Your task to perform on an android device: install app "Google Drive" Image 0: 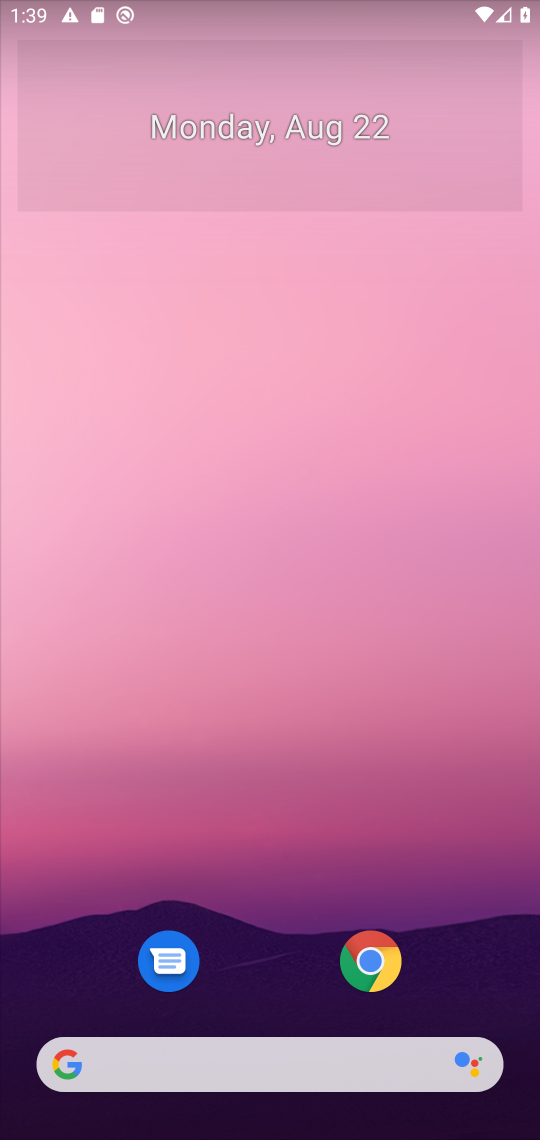
Step 0: press home button
Your task to perform on an android device: install app "Google Drive" Image 1: 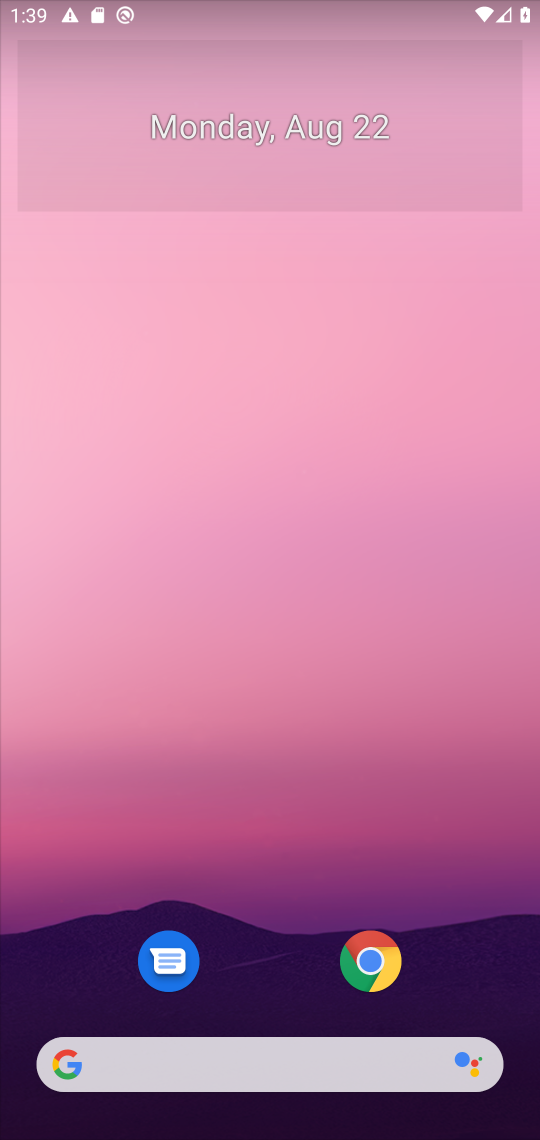
Step 1: drag from (482, 960) to (495, 161)
Your task to perform on an android device: install app "Google Drive" Image 2: 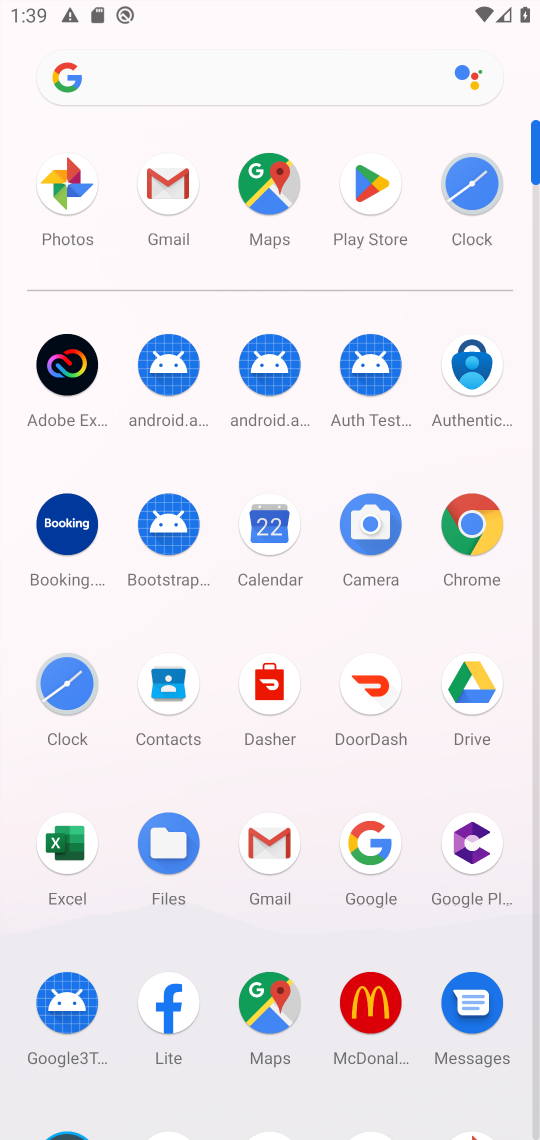
Step 2: click (374, 196)
Your task to perform on an android device: install app "Google Drive" Image 3: 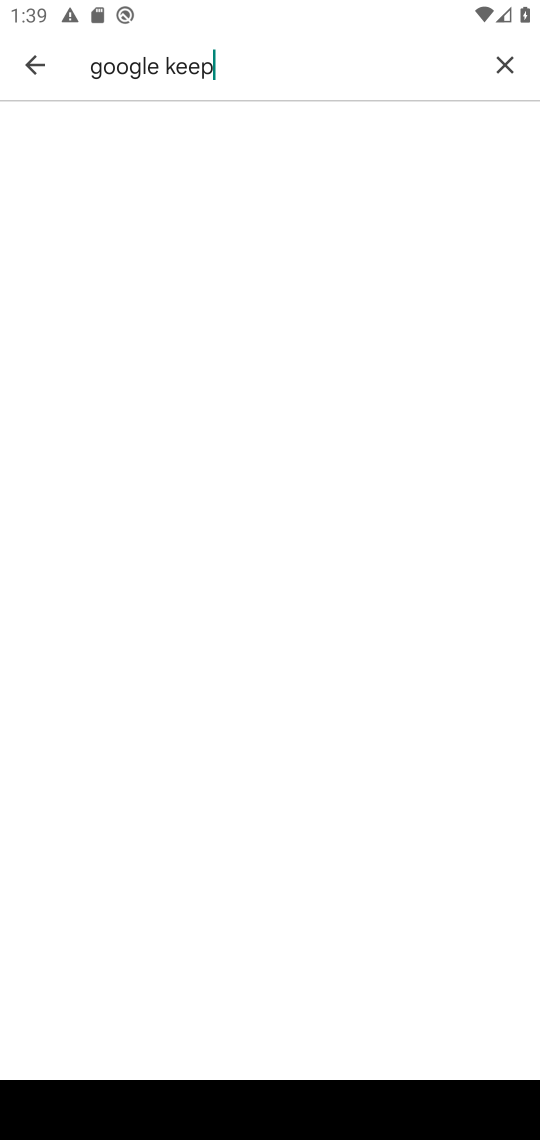
Step 3: press back button
Your task to perform on an android device: install app "Google Drive" Image 4: 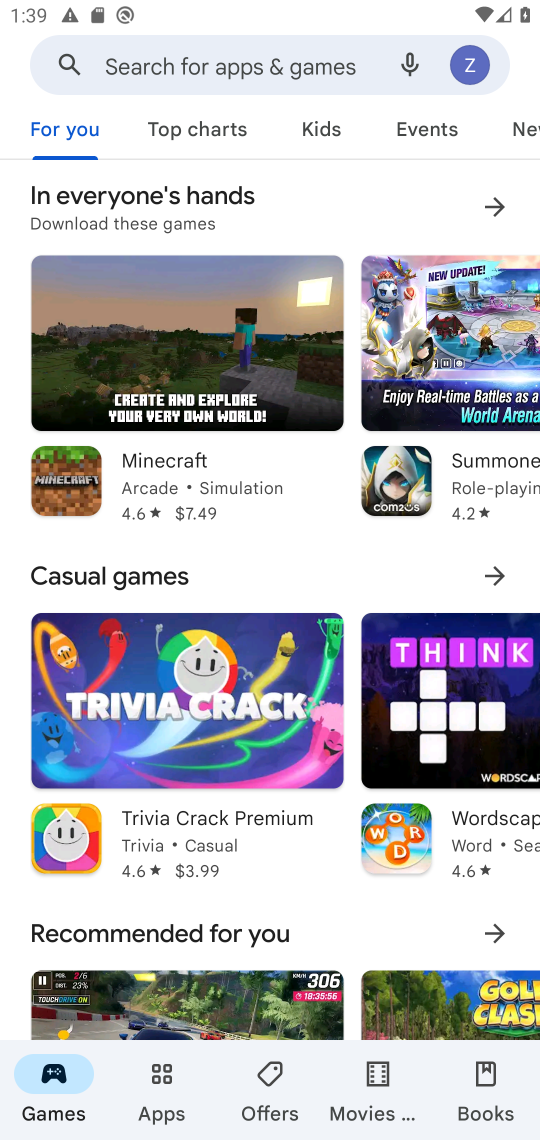
Step 4: click (339, 73)
Your task to perform on an android device: install app "Google Drive" Image 5: 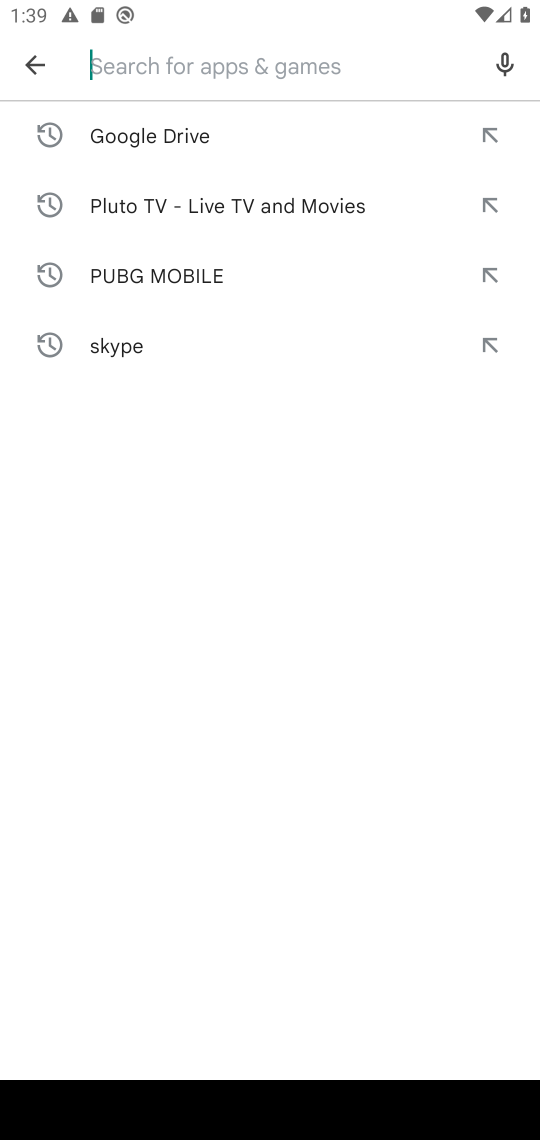
Step 5: type "Google Drive"
Your task to perform on an android device: install app "Google Drive" Image 6: 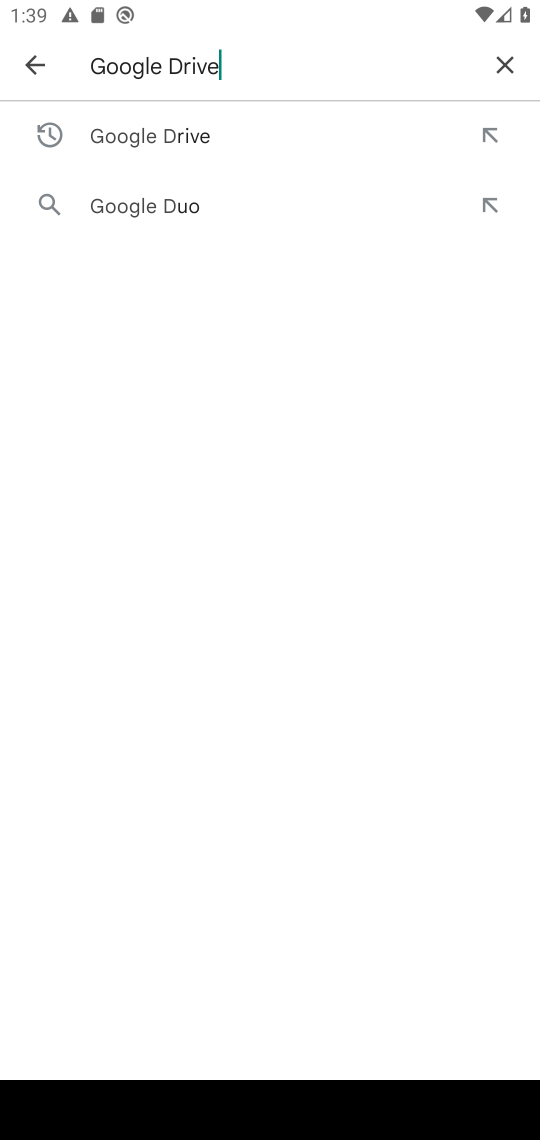
Step 6: press enter
Your task to perform on an android device: install app "Google Drive" Image 7: 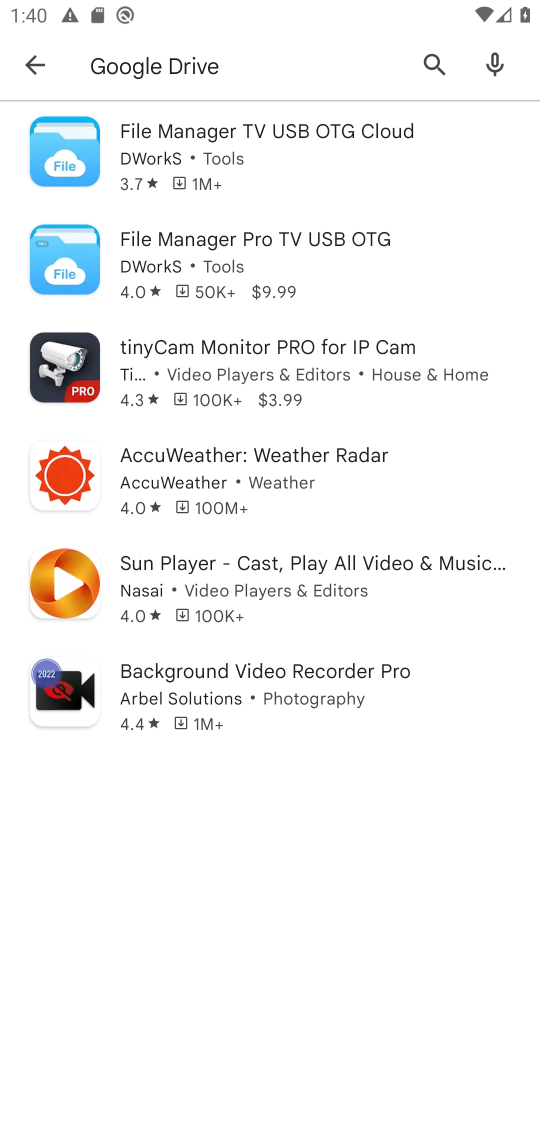
Step 7: task complete